Your task to perform on an android device: Go to Yahoo.com Image 0: 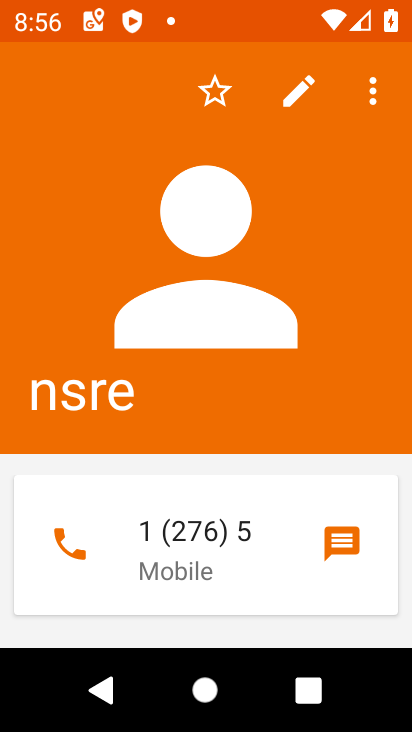
Step 0: press home button
Your task to perform on an android device: Go to Yahoo.com Image 1: 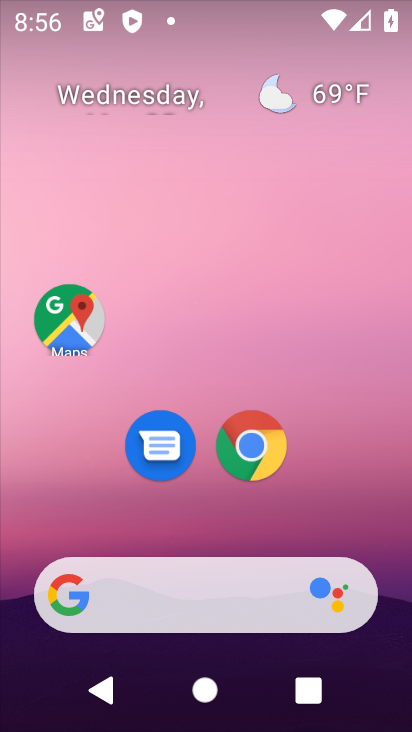
Step 1: click (243, 445)
Your task to perform on an android device: Go to Yahoo.com Image 2: 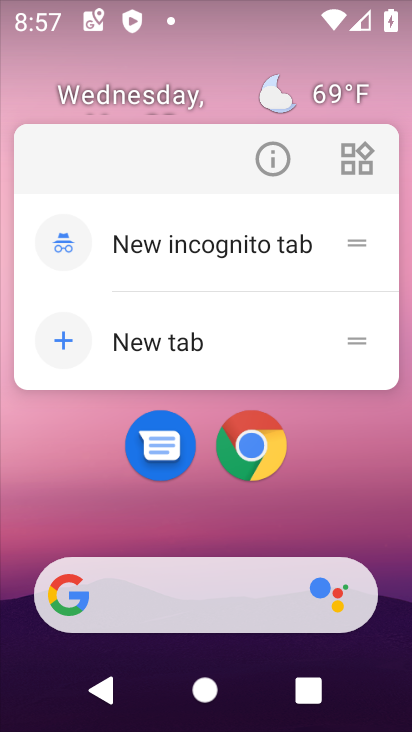
Step 2: click (319, 467)
Your task to perform on an android device: Go to Yahoo.com Image 3: 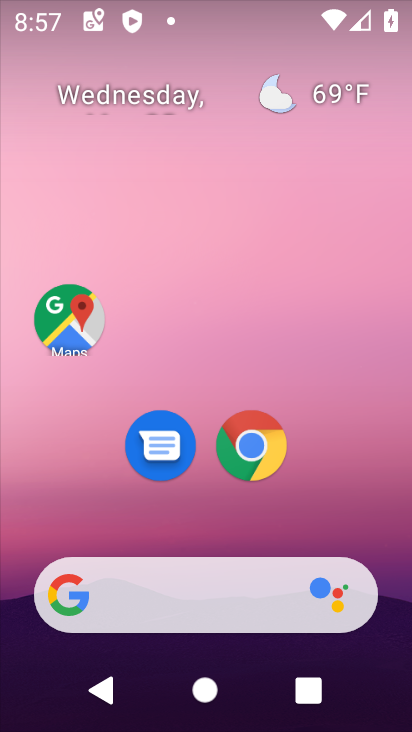
Step 3: drag from (310, 498) to (381, 102)
Your task to perform on an android device: Go to Yahoo.com Image 4: 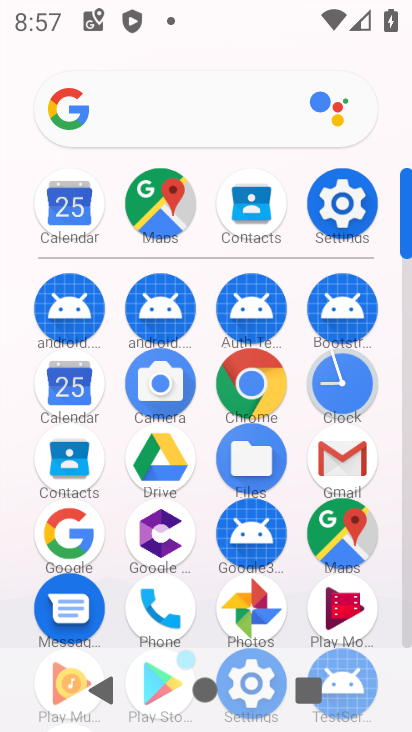
Step 4: click (253, 380)
Your task to perform on an android device: Go to Yahoo.com Image 5: 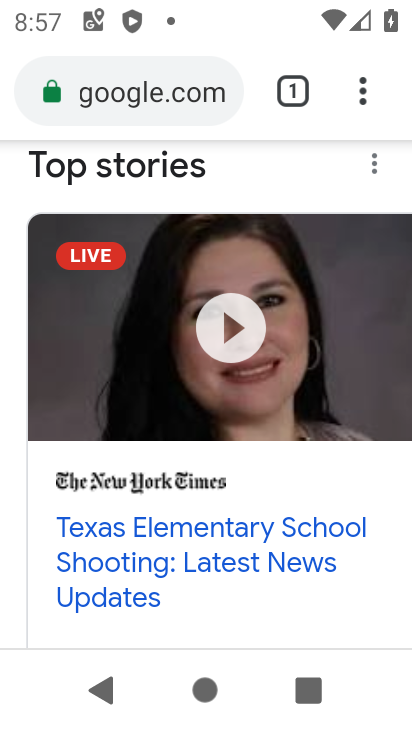
Step 5: click (179, 88)
Your task to perform on an android device: Go to Yahoo.com Image 6: 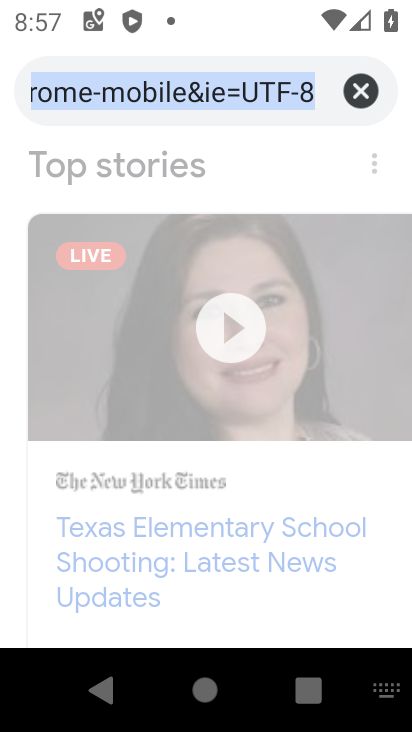
Step 6: click (365, 89)
Your task to perform on an android device: Go to Yahoo.com Image 7: 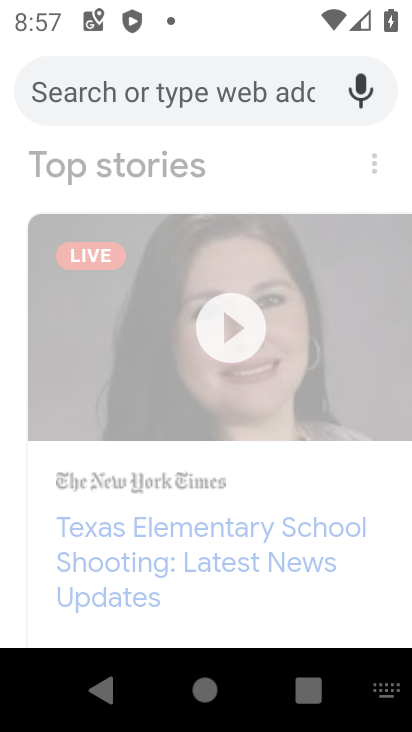
Step 7: type "Yahoo.com"
Your task to perform on an android device: Go to Yahoo.com Image 8: 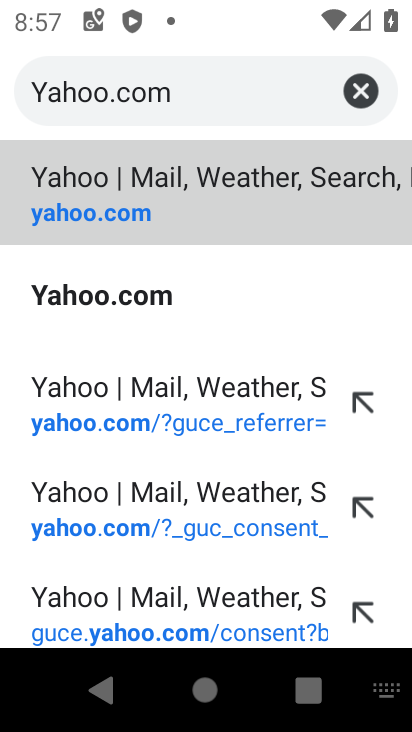
Step 8: click (65, 207)
Your task to perform on an android device: Go to Yahoo.com Image 9: 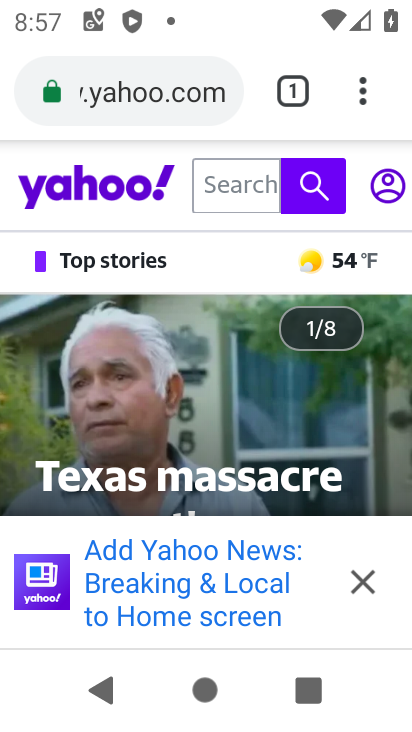
Step 9: task complete